Your task to perform on an android device: remove spam from my inbox in the gmail app Image 0: 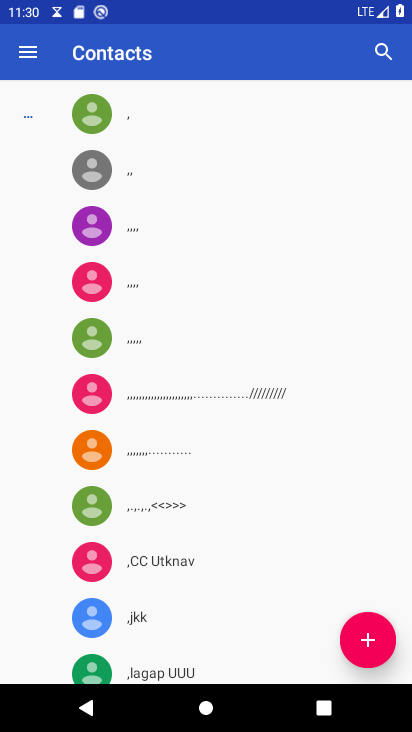
Step 0: press home button
Your task to perform on an android device: remove spam from my inbox in the gmail app Image 1: 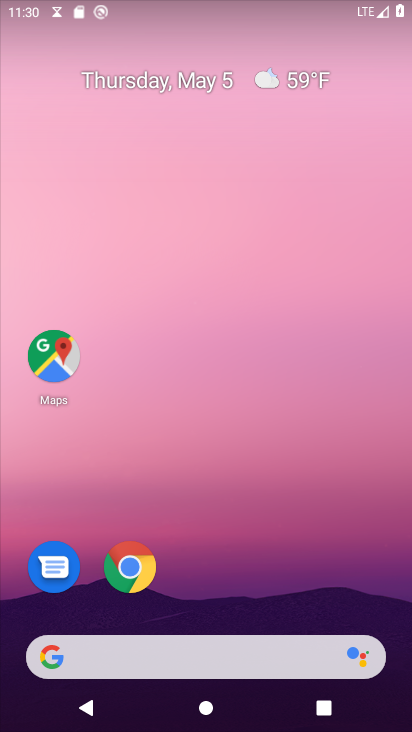
Step 1: drag from (346, 611) to (305, 43)
Your task to perform on an android device: remove spam from my inbox in the gmail app Image 2: 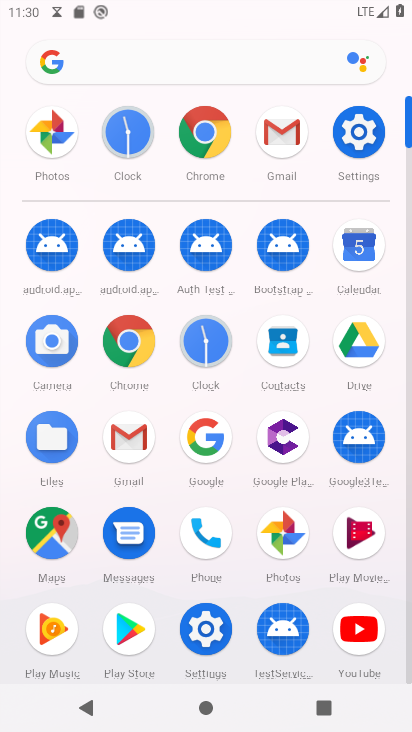
Step 2: click (278, 142)
Your task to perform on an android device: remove spam from my inbox in the gmail app Image 3: 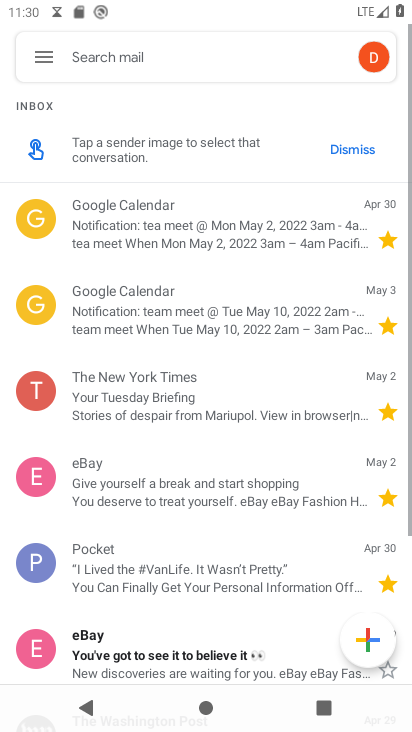
Step 3: click (50, 60)
Your task to perform on an android device: remove spam from my inbox in the gmail app Image 4: 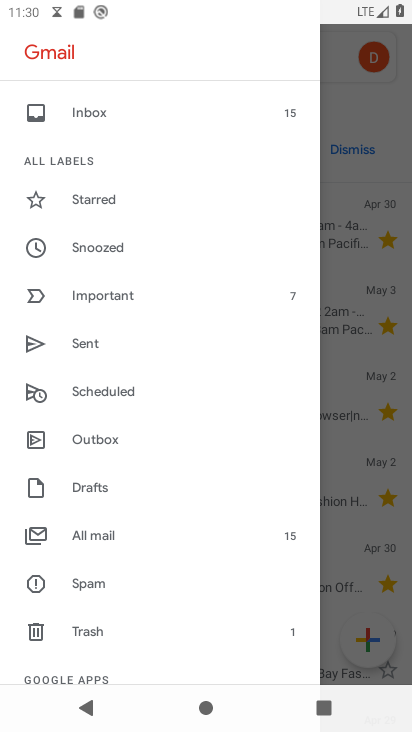
Step 4: click (101, 588)
Your task to perform on an android device: remove spam from my inbox in the gmail app Image 5: 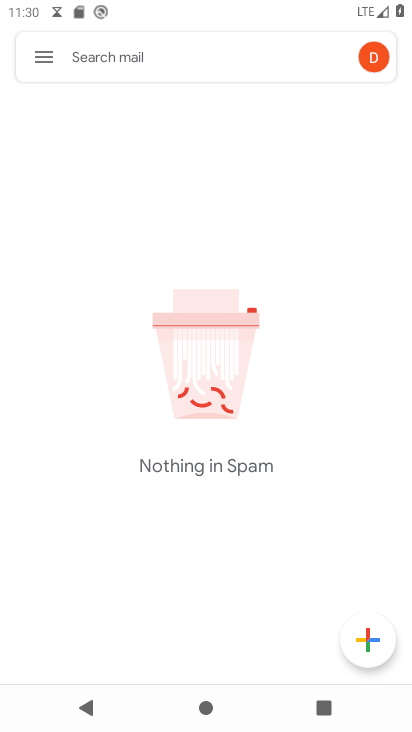
Step 5: task complete